Your task to perform on an android device: Go to battery settings Image 0: 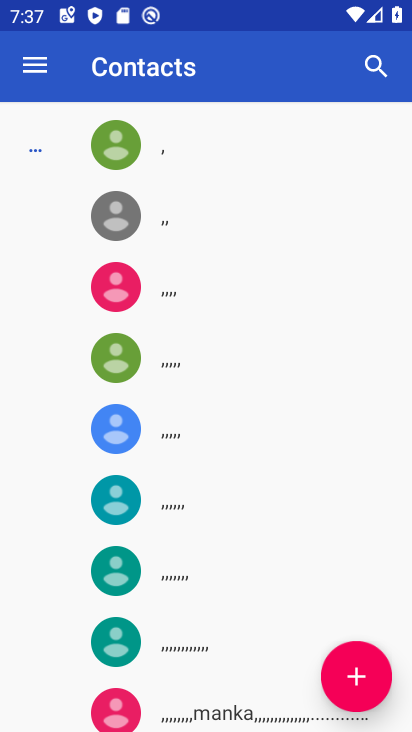
Step 0: press home button
Your task to perform on an android device: Go to battery settings Image 1: 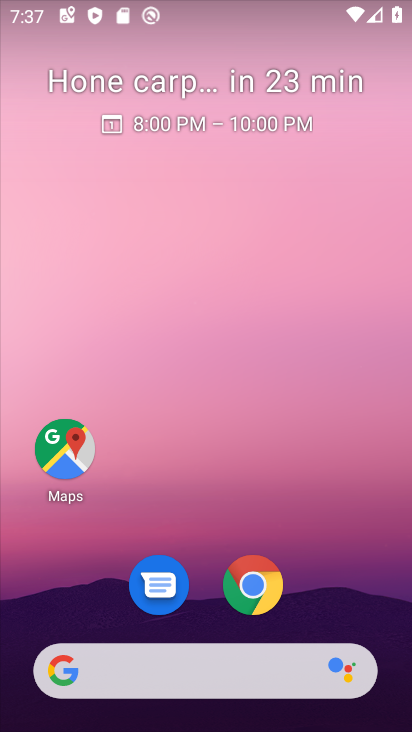
Step 1: drag from (333, 547) to (355, 24)
Your task to perform on an android device: Go to battery settings Image 2: 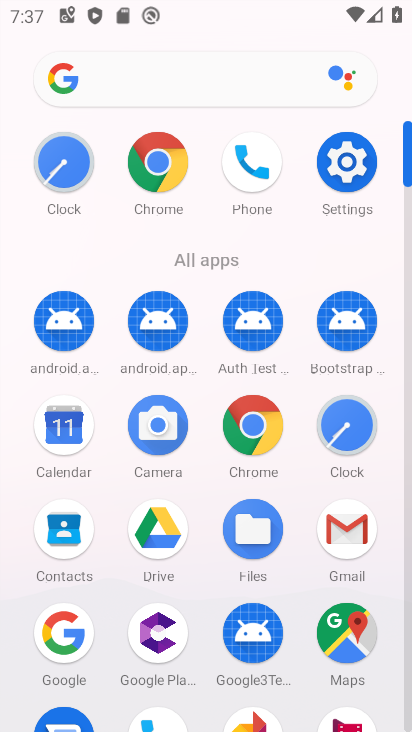
Step 2: click (343, 162)
Your task to perform on an android device: Go to battery settings Image 3: 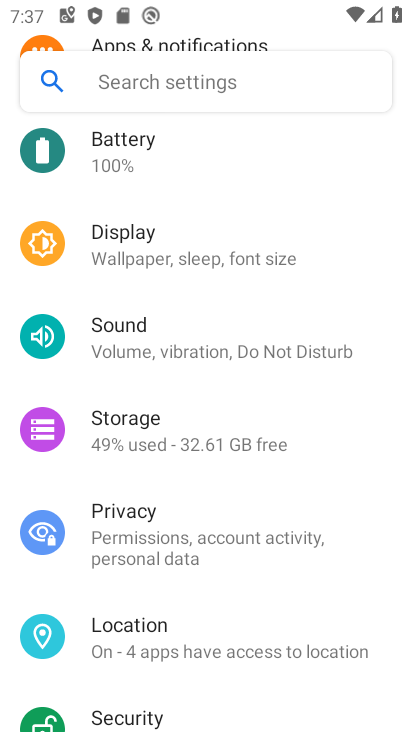
Step 3: click (185, 142)
Your task to perform on an android device: Go to battery settings Image 4: 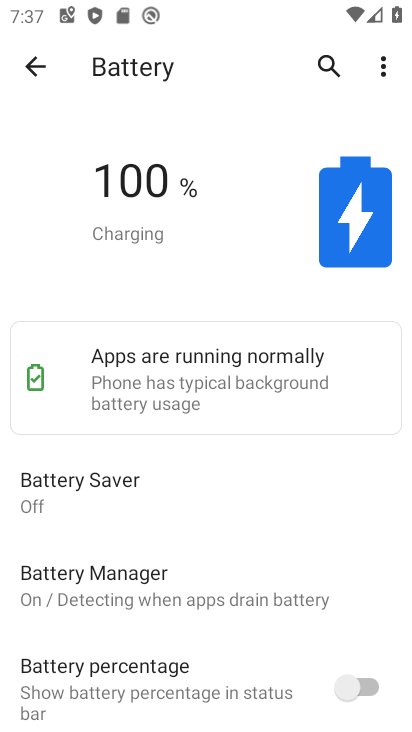
Step 4: task complete